Your task to perform on an android device: turn off notifications in google photos Image 0: 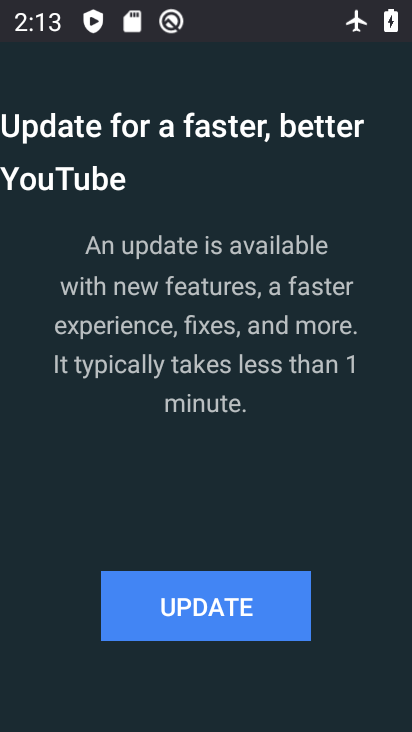
Step 0: press home button
Your task to perform on an android device: turn off notifications in google photos Image 1: 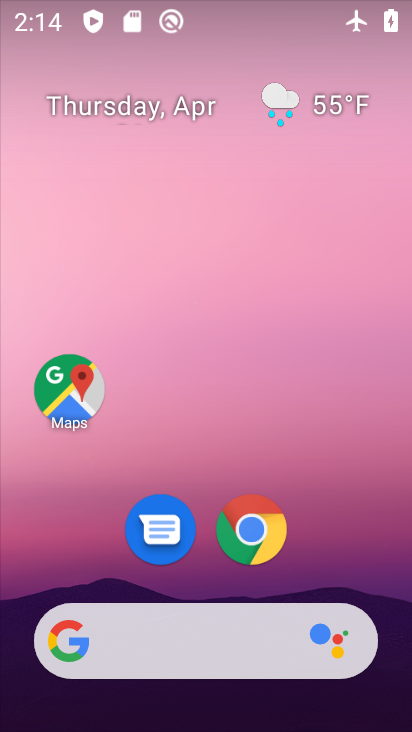
Step 1: drag from (219, 590) to (207, 209)
Your task to perform on an android device: turn off notifications in google photos Image 2: 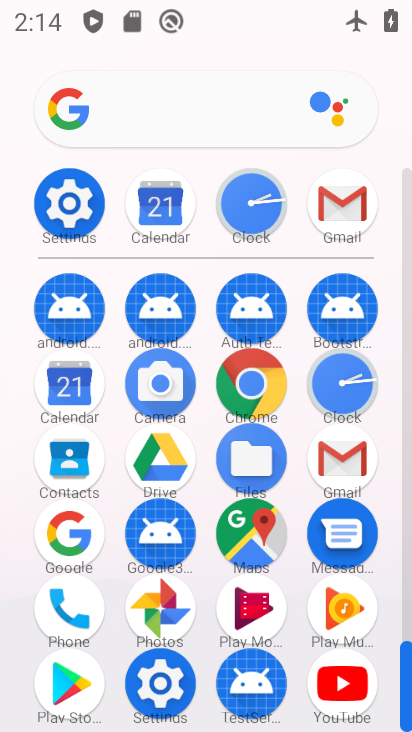
Step 2: click (161, 611)
Your task to perform on an android device: turn off notifications in google photos Image 3: 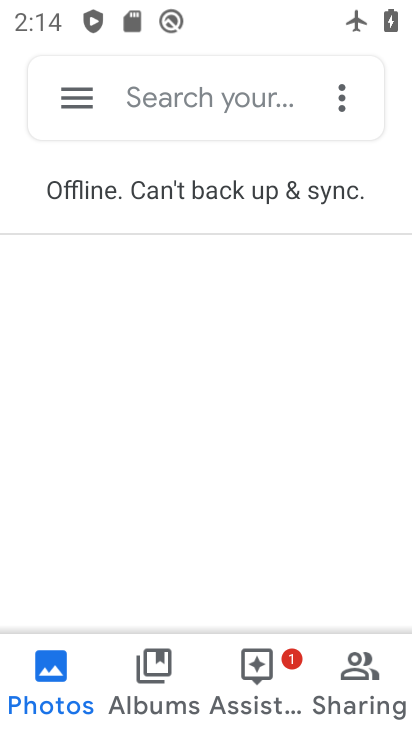
Step 3: click (79, 113)
Your task to perform on an android device: turn off notifications in google photos Image 4: 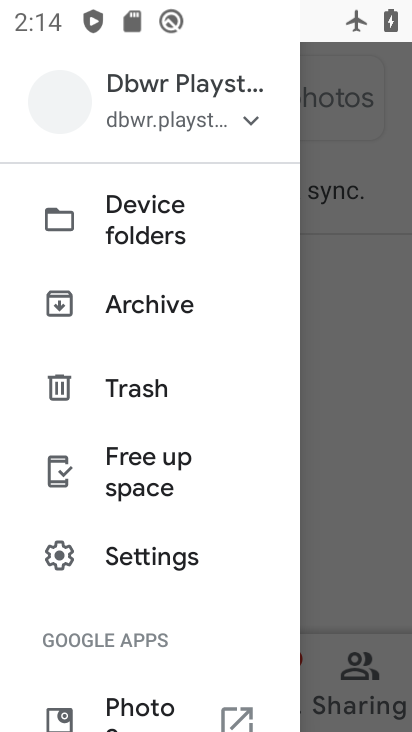
Step 4: click (149, 560)
Your task to perform on an android device: turn off notifications in google photos Image 5: 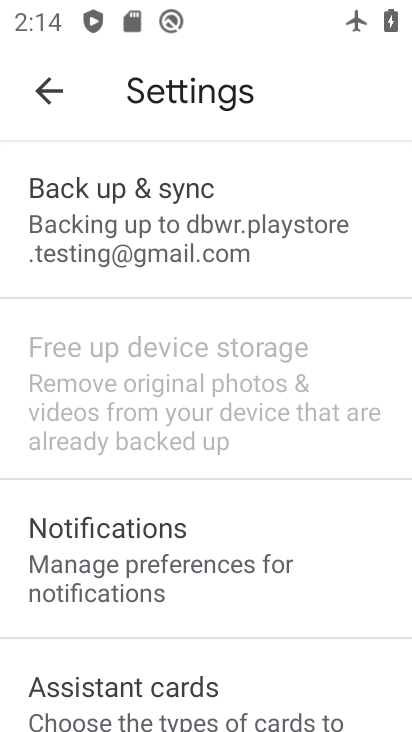
Step 5: click (179, 584)
Your task to perform on an android device: turn off notifications in google photos Image 6: 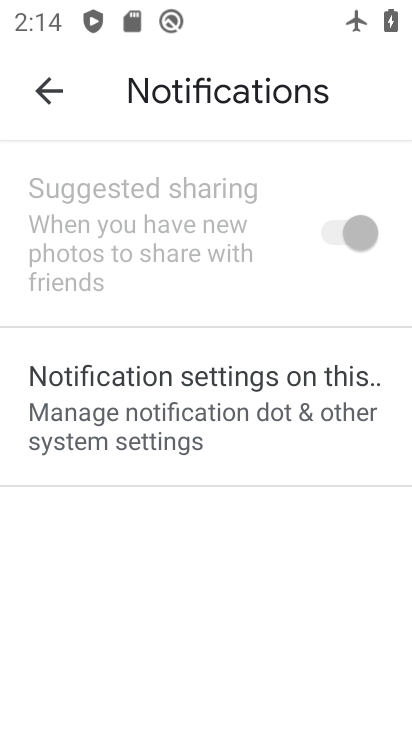
Step 6: click (218, 418)
Your task to perform on an android device: turn off notifications in google photos Image 7: 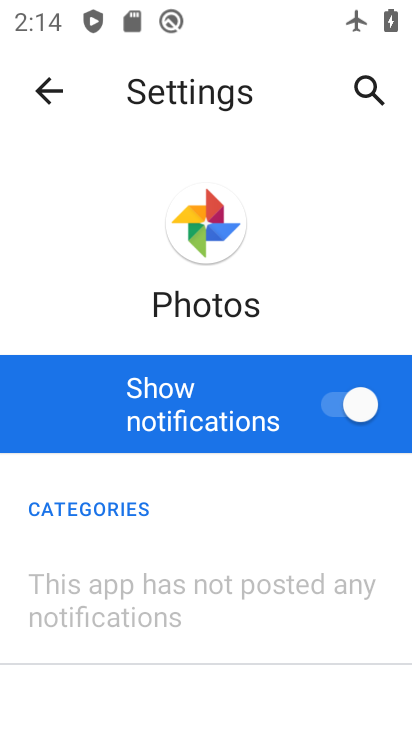
Step 7: click (362, 408)
Your task to perform on an android device: turn off notifications in google photos Image 8: 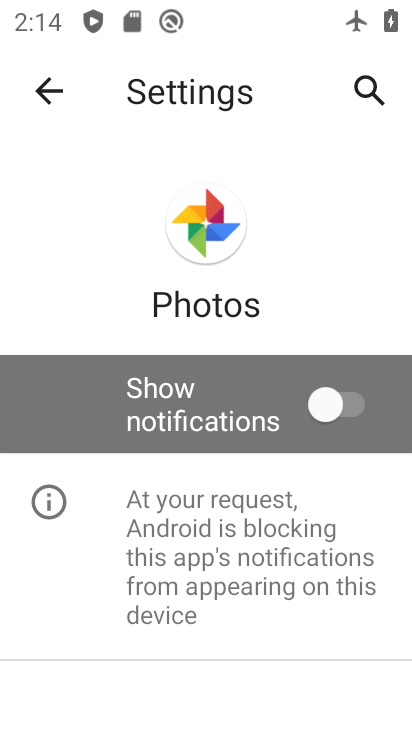
Step 8: task complete